Your task to perform on an android device: empty trash in google photos Image 0: 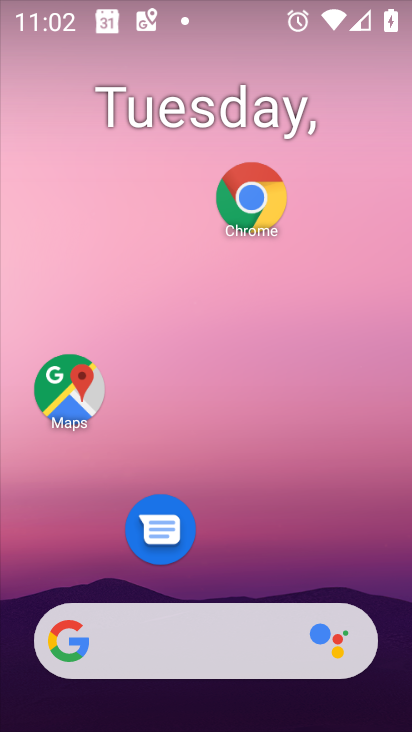
Step 0: drag from (253, 555) to (237, 373)
Your task to perform on an android device: empty trash in google photos Image 1: 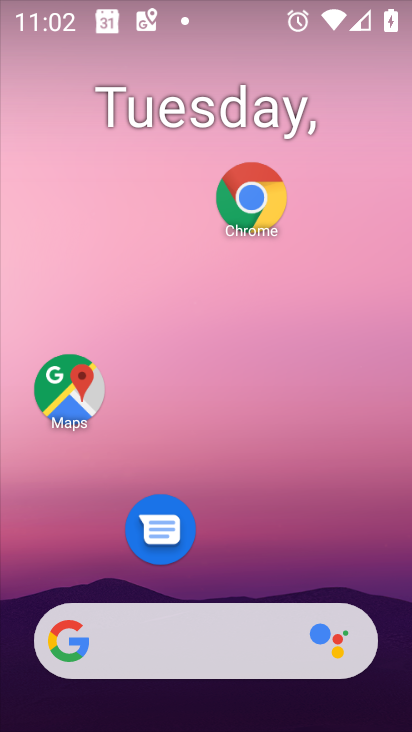
Step 1: drag from (257, 380) to (226, 38)
Your task to perform on an android device: empty trash in google photos Image 2: 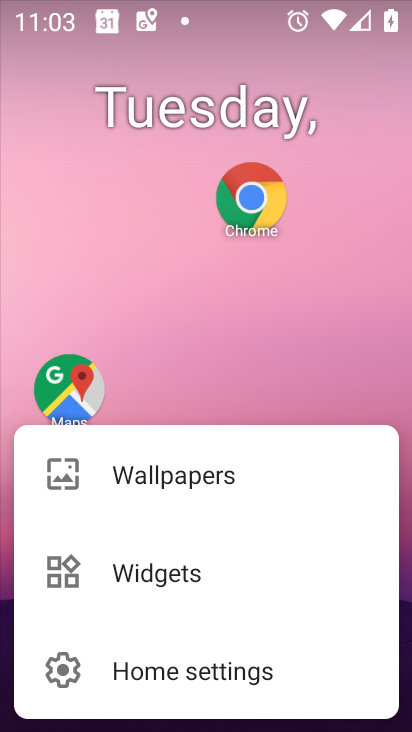
Step 2: click (240, 363)
Your task to perform on an android device: empty trash in google photos Image 3: 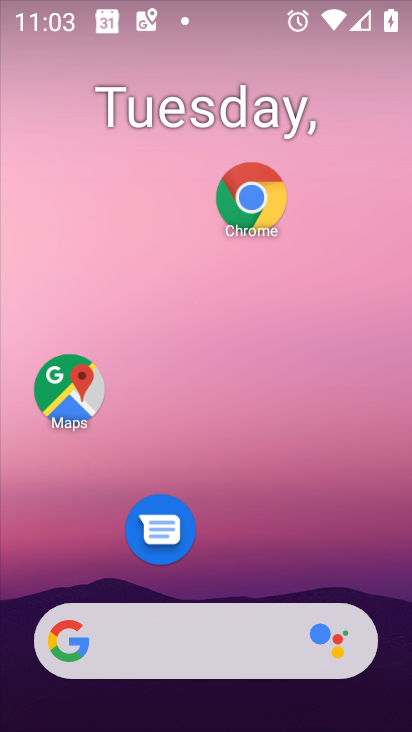
Step 3: drag from (314, 580) to (330, 166)
Your task to perform on an android device: empty trash in google photos Image 4: 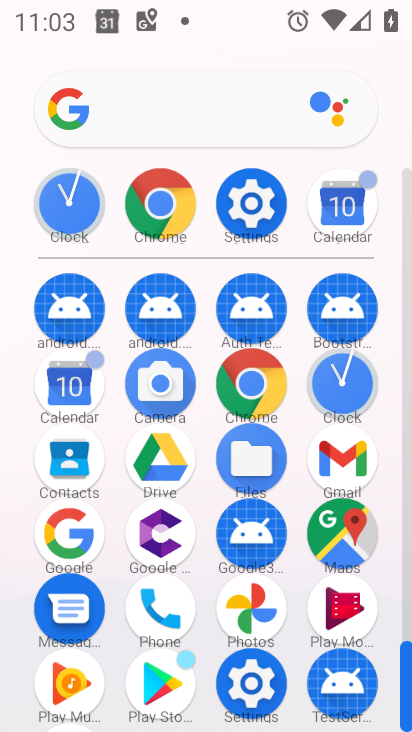
Step 4: click (252, 588)
Your task to perform on an android device: empty trash in google photos Image 5: 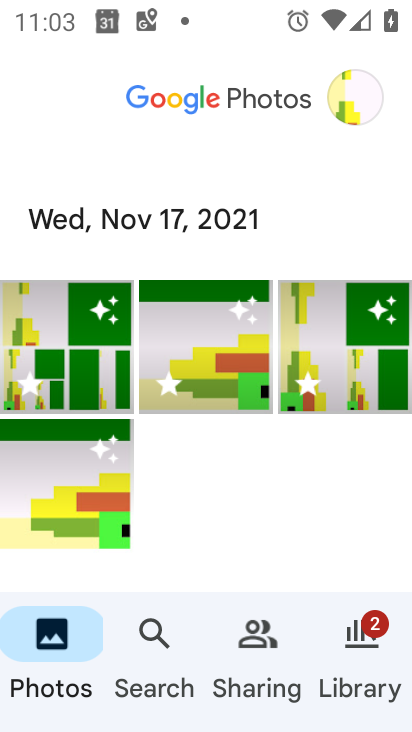
Step 5: click (353, 133)
Your task to perform on an android device: empty trash in google photos Image 6: 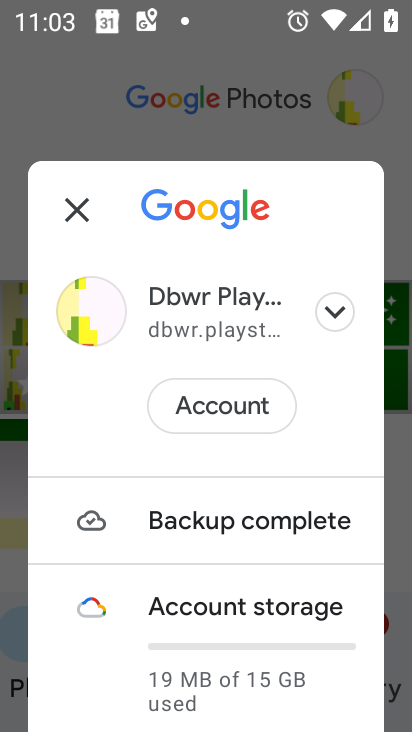
Step 6: click (192, 139)
Your task to perform on an android device: empty trash in google photos Image 7: 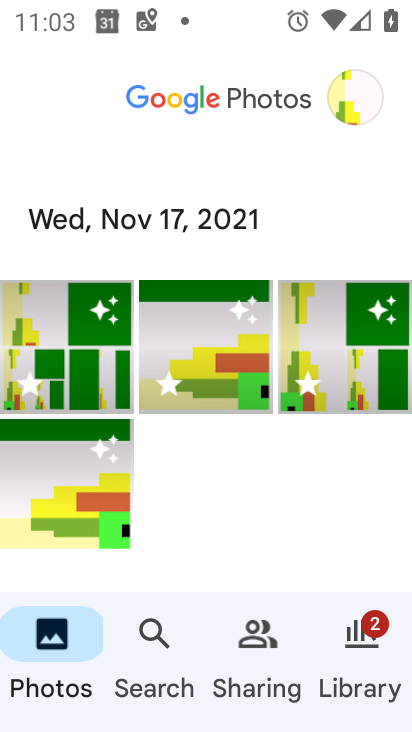
Step 7: click (353, 661)
Your task to perform on an android device: empty trash in google photos Image 8: 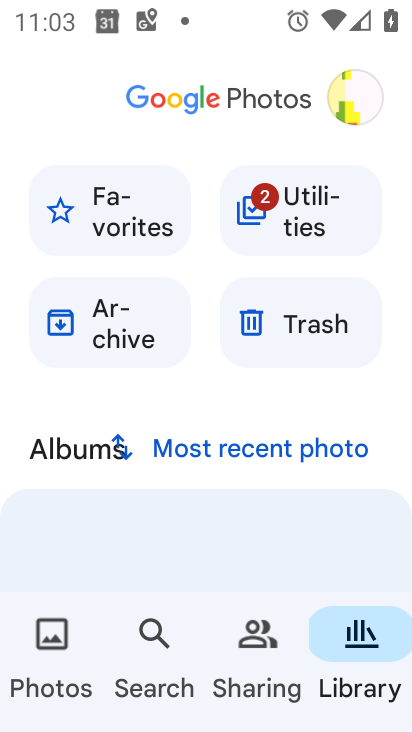
Step 8: click (299, 356)
Your task to perform on an android device: empty trash in google photos Image 9: 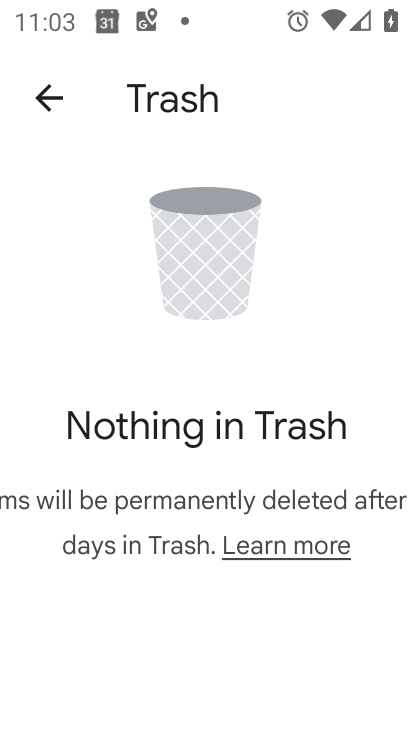
Step 9: task complete